Your task to perform on an android device: Go to Google Image 0: 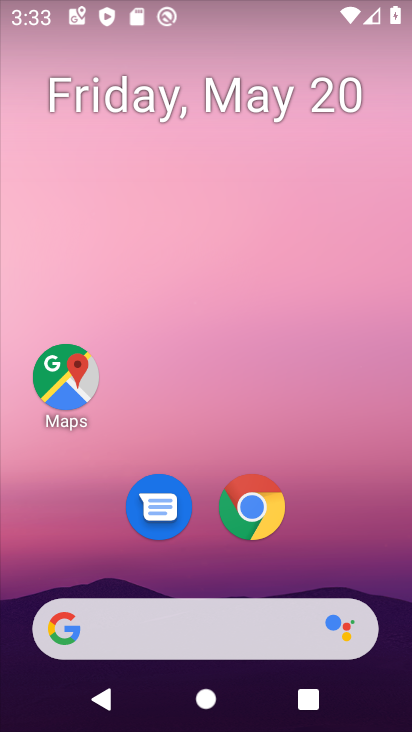
Step 0: drag from (344, 541) to (261, 246)
Your task to perform on an android device: Go to Google Image 1: 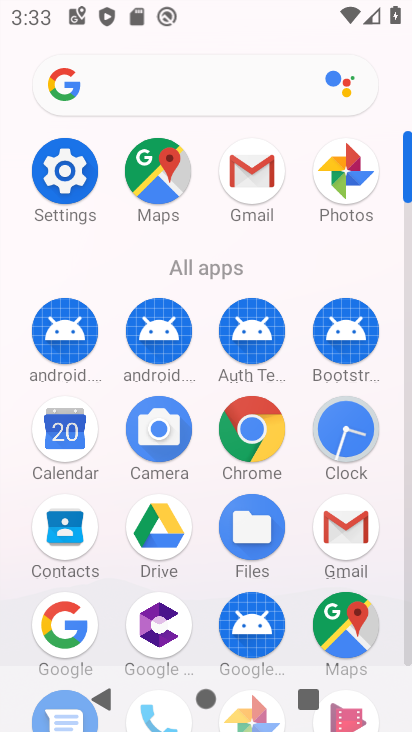
Step 1: drag from (302, 500) to (298, 267)
Your task to perform on an android device: Go to Google Image 2: 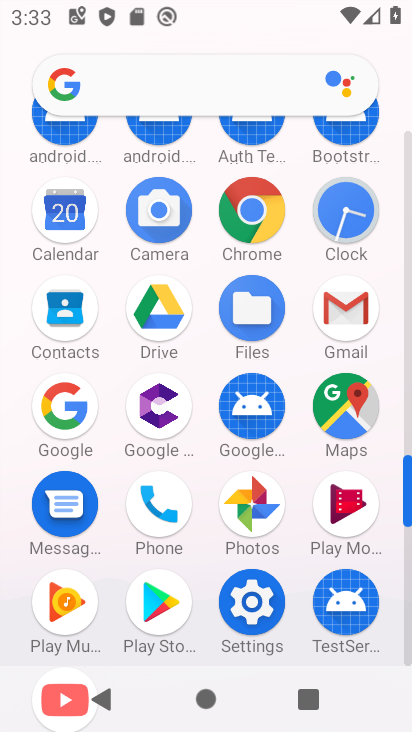
Step 2: click (57, 404)
Your task to perform on an android device: Go to Google Image 3: 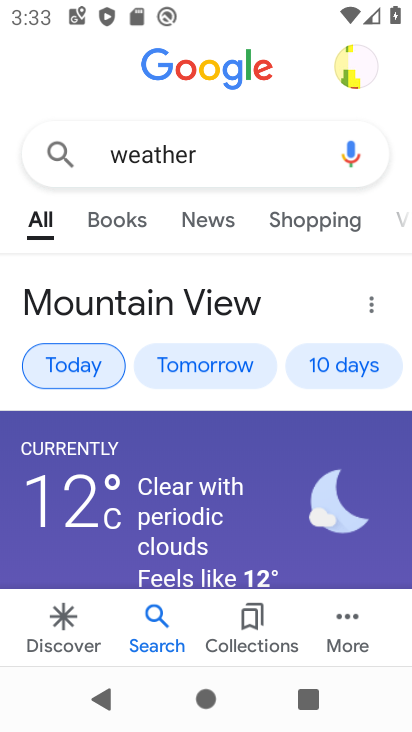
Step 3: task complete